Your task to perform on an android device: Go to network settings Image 0: 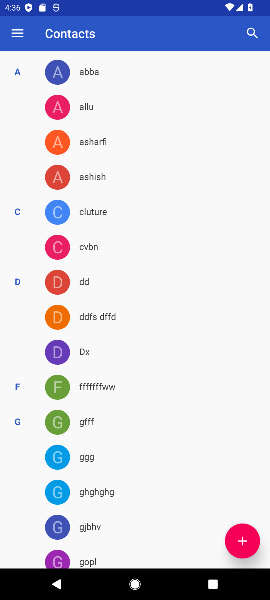
Step 0: press home button
Your task to perform on an android device: Go to network settings Image 1: 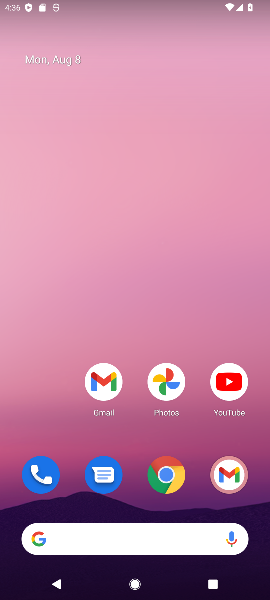
Step 1: drag from (57, 411) to (58, 293)
Your task to perform on an android device: Go to network settings Image 2: 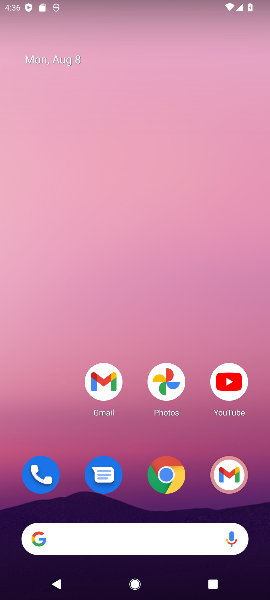
Step 2: drag from (69, 431) to (69, 228)
Your task to perform on an android device: Go to network settings Image 3: 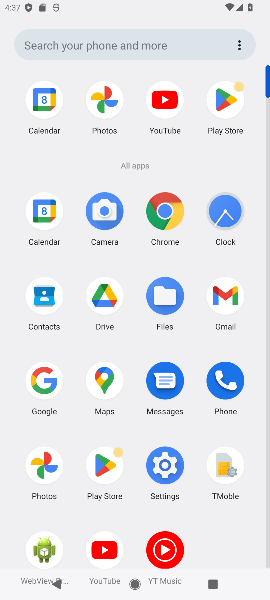
Step 3: click (159, 470)
Your task to perform on an android device: Go to network settings Image 4: 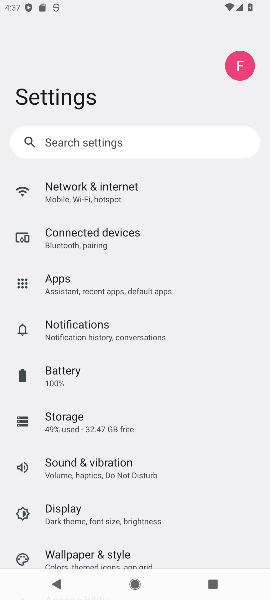
Step 4: drag from (206, 487) to (212, 390)
Your task to perform on an android device: Go to network settings Image 5: 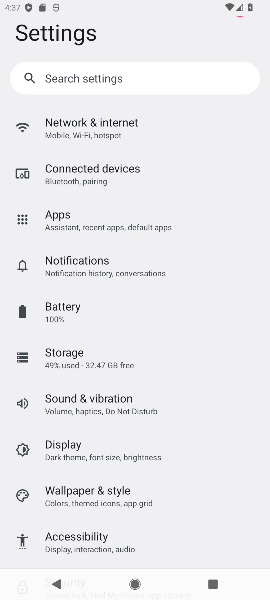
Step 5: drag from (231, 447) to (230, 391)
Your task to perform on an android device: Go to network settings Image 6: 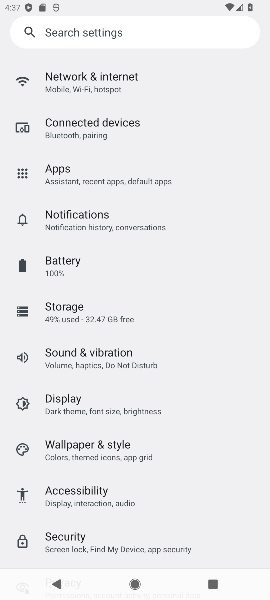
Step 6: drag from (210, 466) to (216, 373)
Your task to perform on an android device: Go to network settings Image 7: 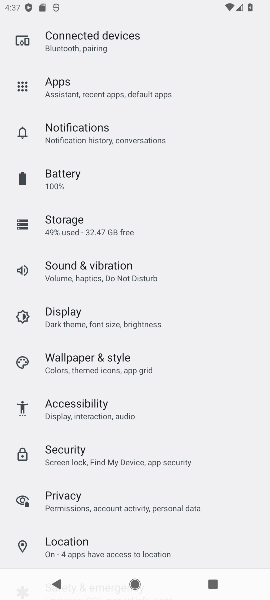
Step 7: drag from (213, 467) to (215, 393)
Your task to perform on an android device: Go to network settings Image 8: 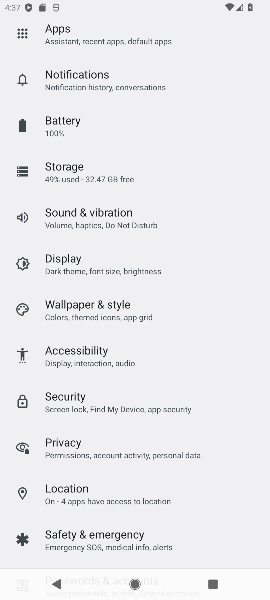
Step 8: drag from (217, 476) to (223, 390)
Your task to perform on an android device: Go to network settings Image 9: 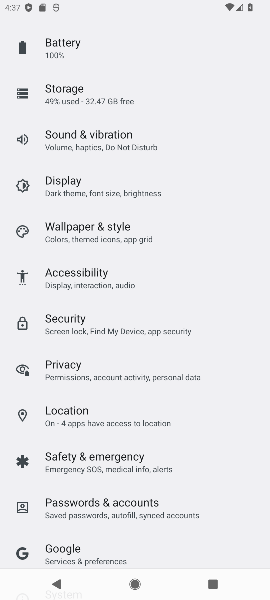
Step 9: drag from (220, 456) to (225, 393)
Your task to perform on an android device: Go to network settings Image 10: 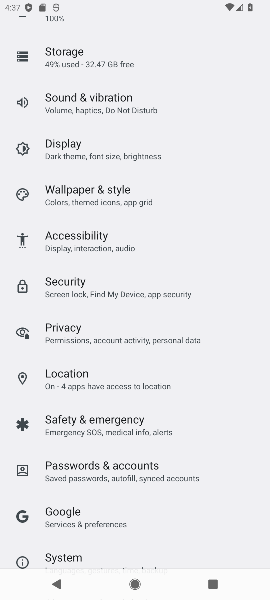
Step 10: drag from (232, 299) to (230, 362)
Your task to perform on an android device: Go to network settings Image 11: 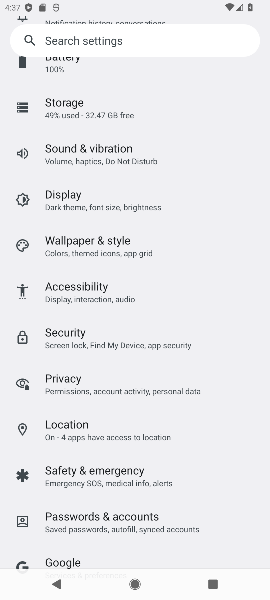
Step 11: drag from (231, 262) to (220, 294)
Your task to perform on an android device: Go to network settings Image 12: 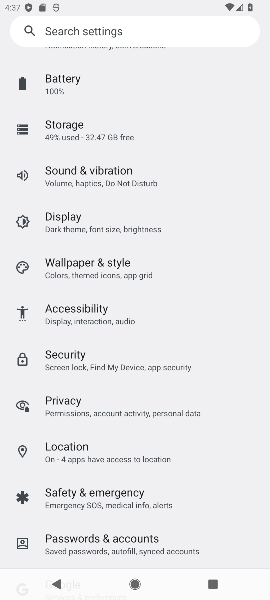
Step 12: drag from (218, 220) to (218, 294)
Your task to perform on an android device: Go to network settings Image 13: 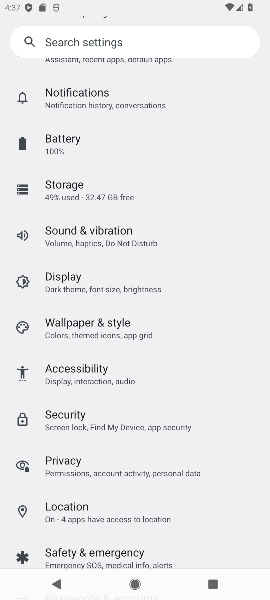
Step 13: drag from (212, 192) to (213, 271)
Your task to perform on an android device: Go to network settings Image 14: 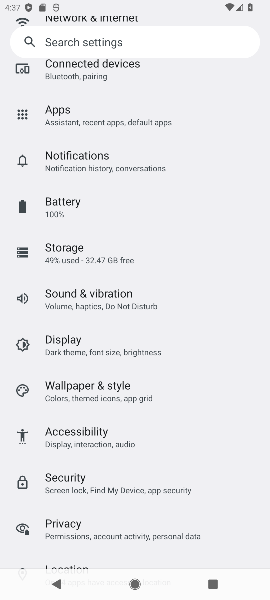
Step 14: drag from (206, 171) to (205, 265)
Your task to perform on an android device: Go to network settings Image 15: 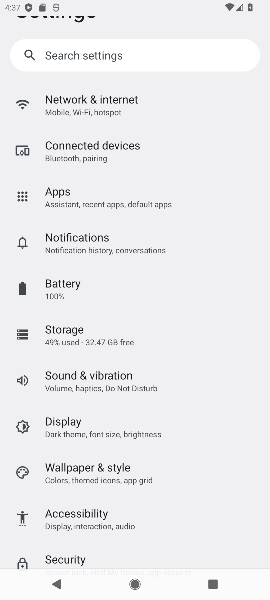
Step 15: drag from (215, 193) to (212, 305)
Your task to perform on an android device: Go to network settings Image 16: 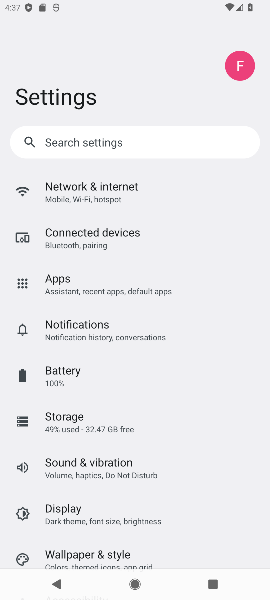
Step 16: drag from (224, 202) to (210, 310)
Your task to perform on an android device: Go to network settings Image 17: 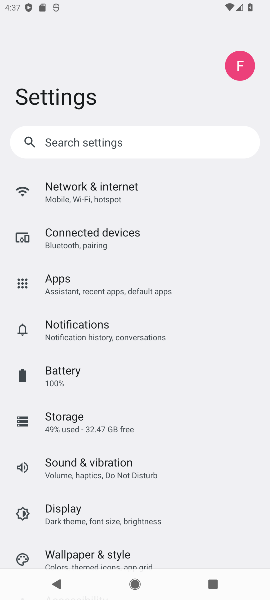
Step 17: click (133, 194)
Your task to perform on an android device: Go to network settings Image 18: 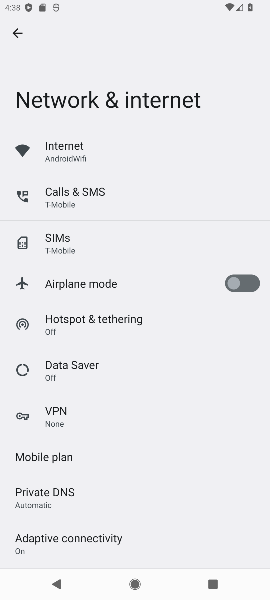
Step 18: task complete